Your task to perform on an android device: What is the recent news? Image 0: 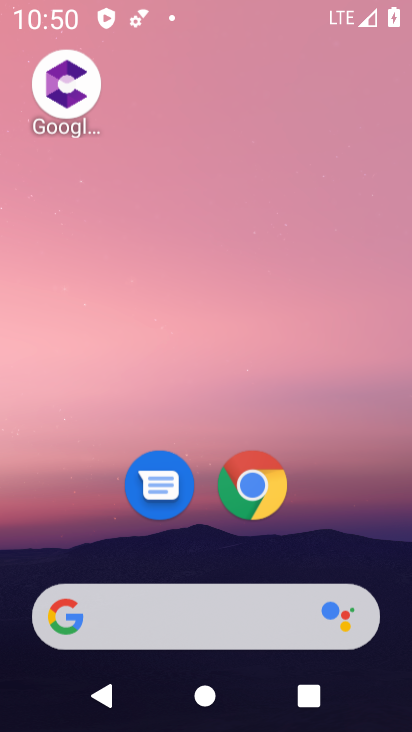
Step 0: press home button
Your task to perform on an android device: What is the recent news? Image 1: 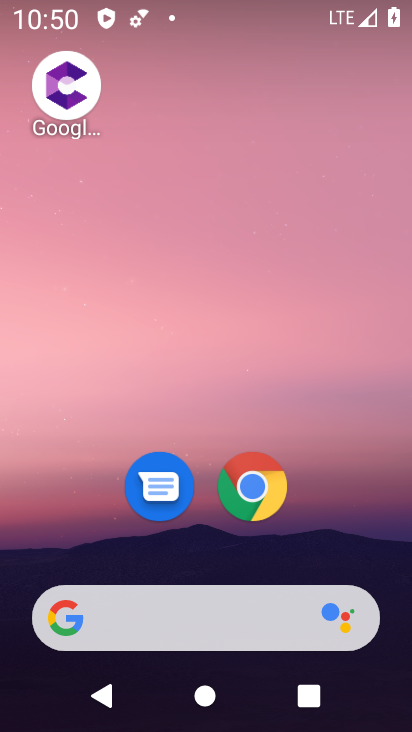
Step 1: task complete